Your task to perform on an android device: open device folders in google photos Image 0: 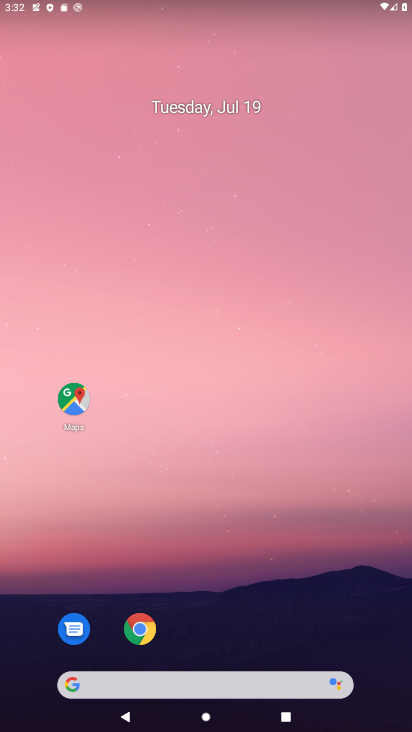
Step 0: drag from (198, 674) to (214, 232)
Your task to perform on an android device: open device folders in google photos Image 1: 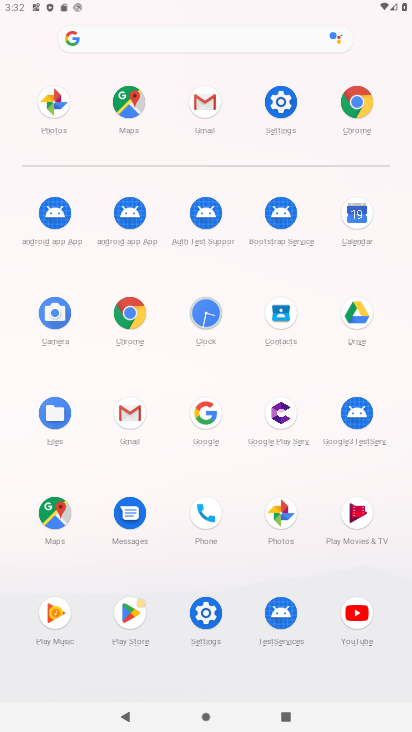
Step 1: click (275, 511)
Your task to perform on an android device: open device folders in google photos Image 2: 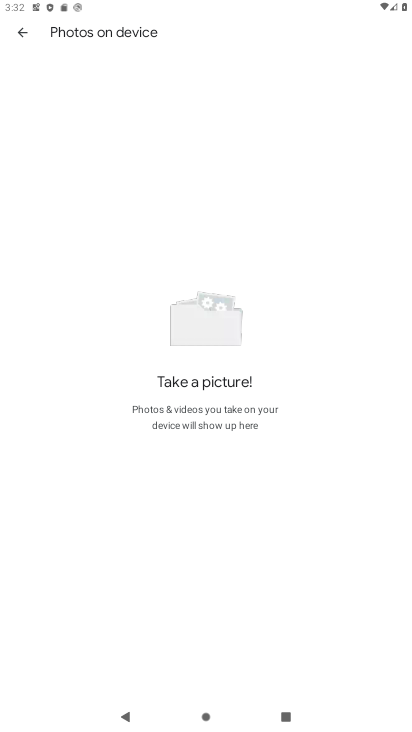
Step 2: task complete